Your task to perform on an android device: change notifications settings Image 0: 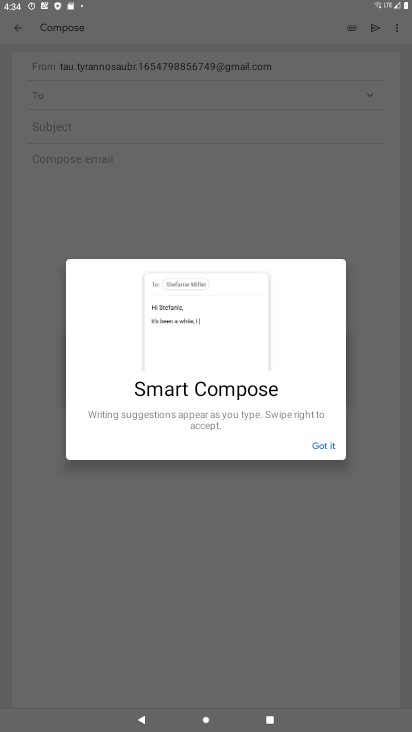
Step 0: press home button
Your task to perform on an android device: change notifications settings Image 1: 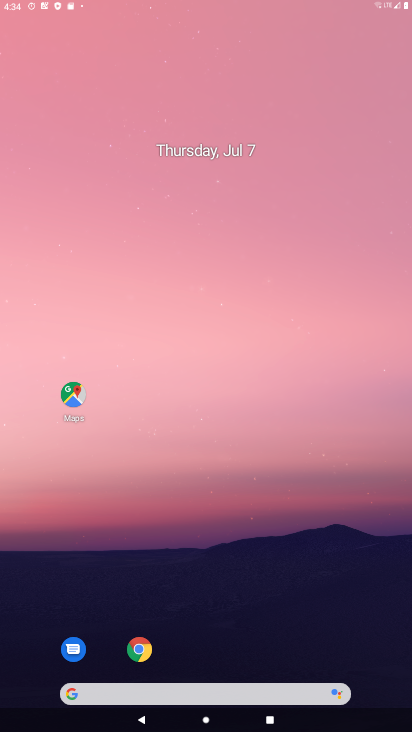
Step 1: drag from (391, 692) to (203, 82)
Your task to perform on an android device: change notifications settings Image 2: 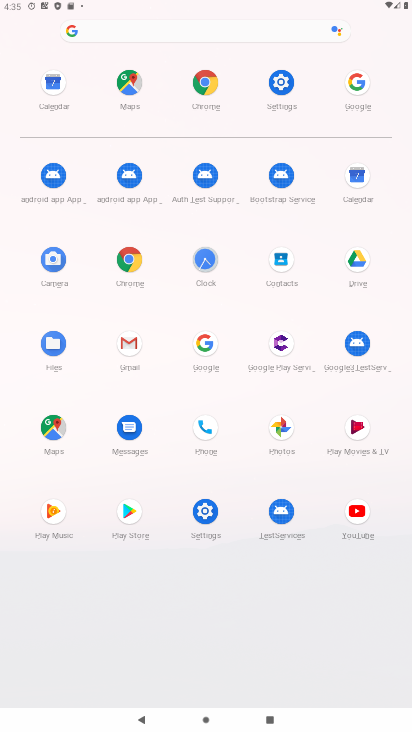
Step 2: click (268, 94)
Your task to perform on an android device: change notifications settings Image 3: 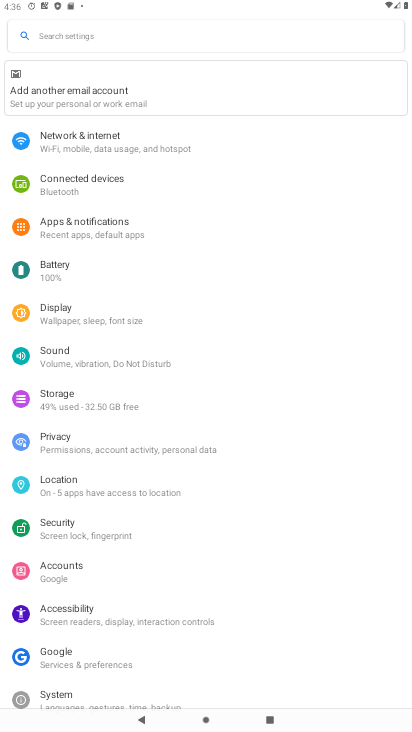
Step 3: click (91, 243)
Your task to perform on an android device: change notifications settings Image 4: 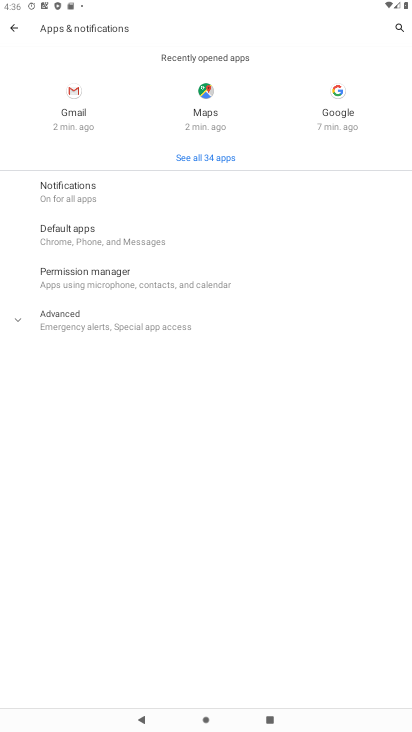
Step 4: click (113, 193)
Your task to perform on an android device: change notifications settings Image 5: 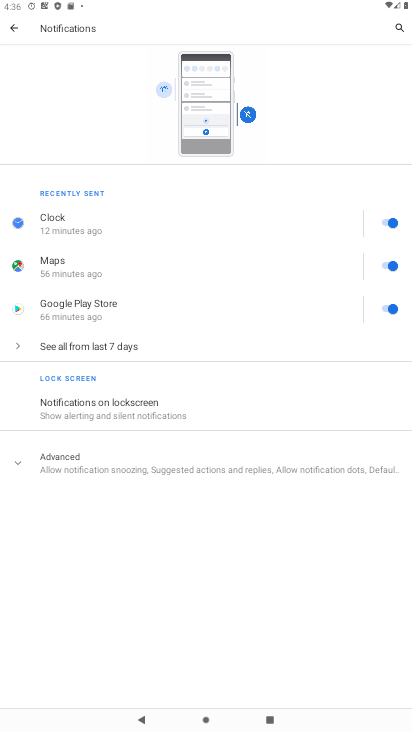
Step 5: task complete